Your task to perform on an android device: set the stopwatch Image 0: 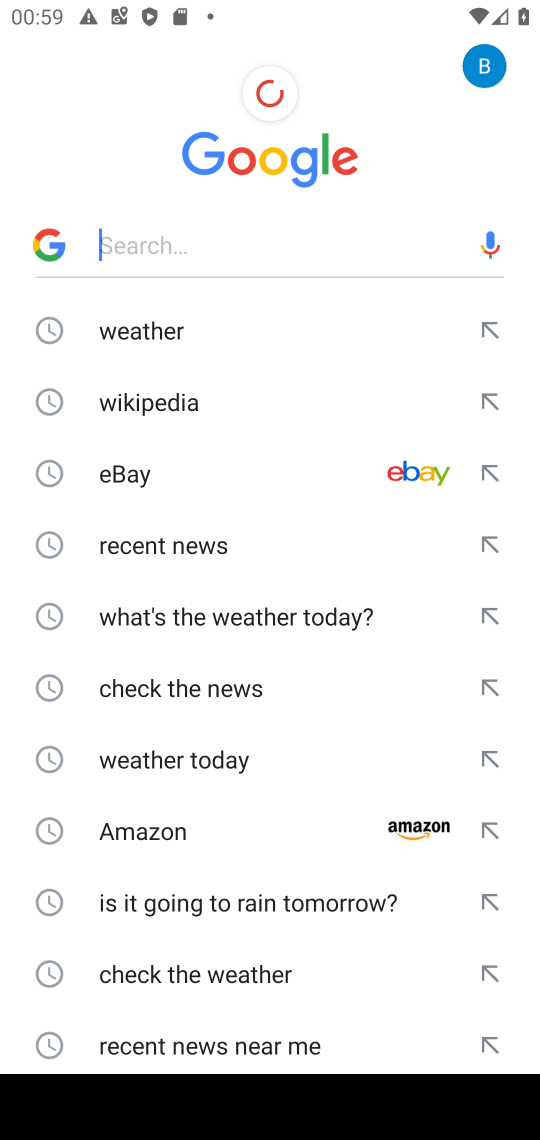
Step 0: press home button
Your task to perform on an android device: set the stopwatch Image 1: 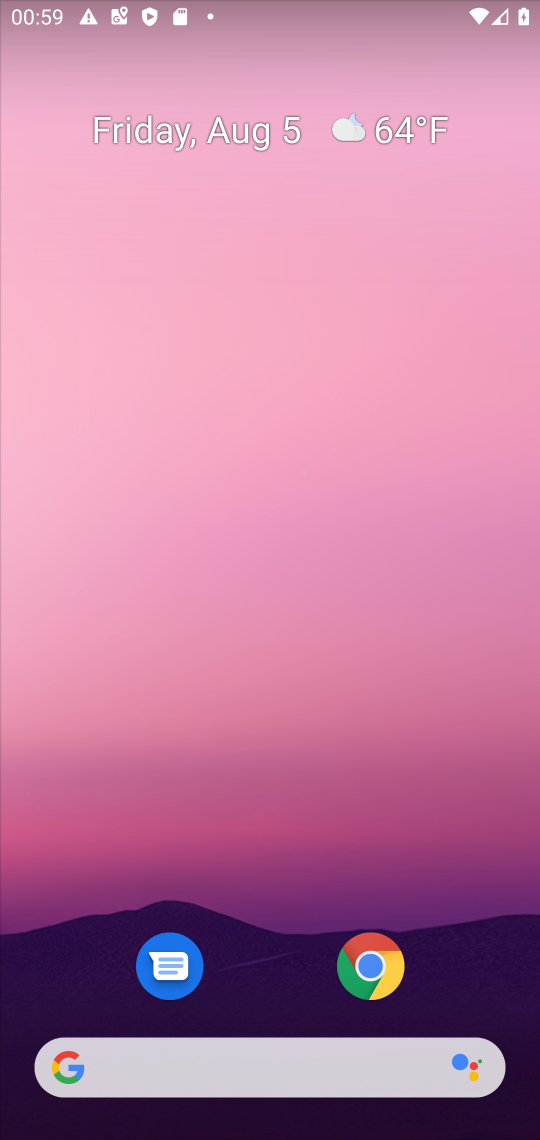
Step 1: drag from (242, 967) to (251, 51)
Your task to perform on an android device: set the stopwatch Image 2: 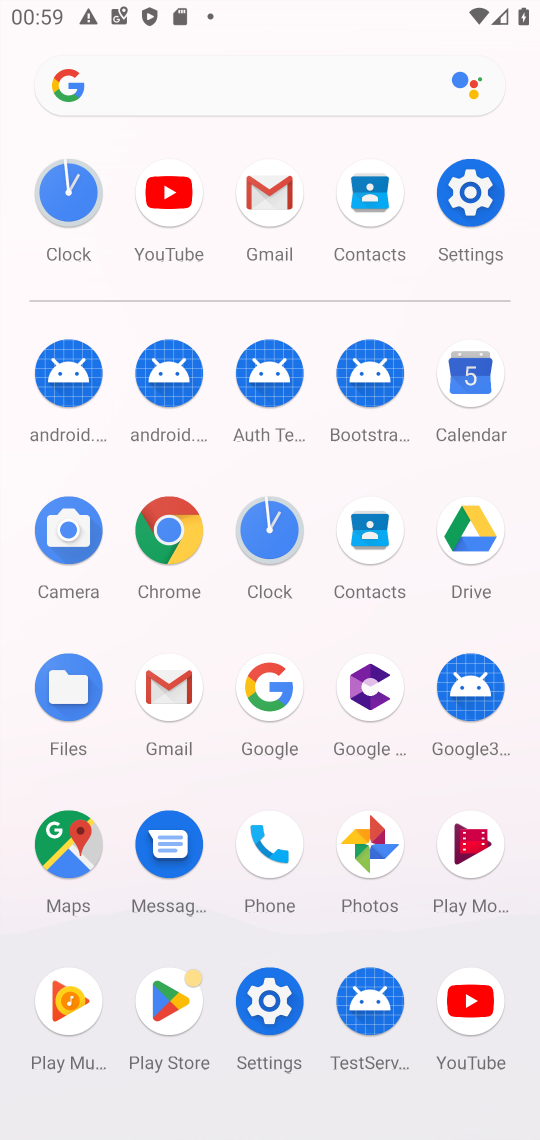
Step 2: click (86, 197)
Your task to perform on an android device: set the stopwatch Image 3: 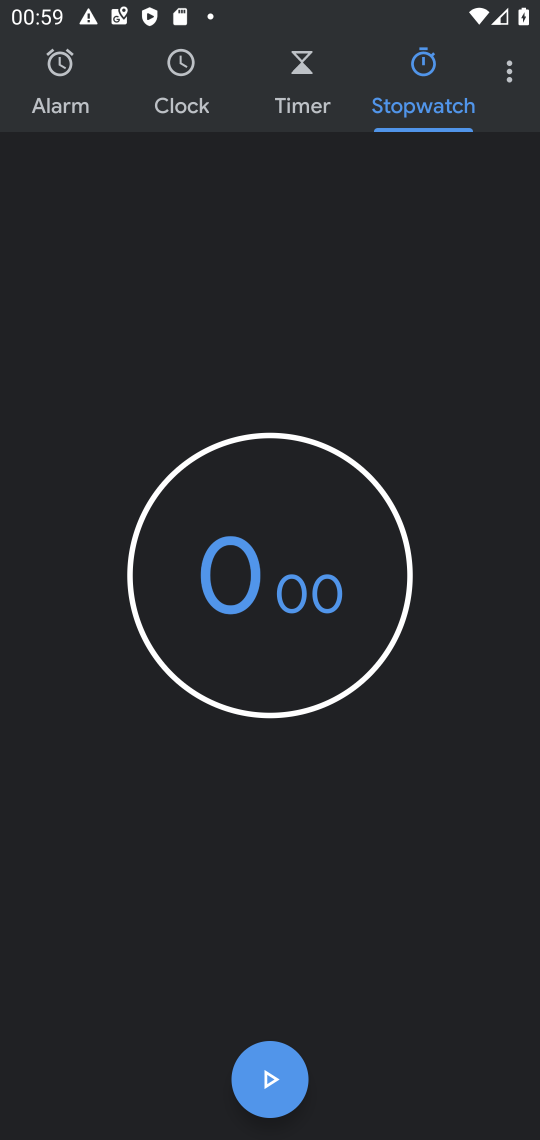
Step 3: task complete